Your task to perform on an android device: Nike Air Max 2020 shoes on Nike.com Image 0: 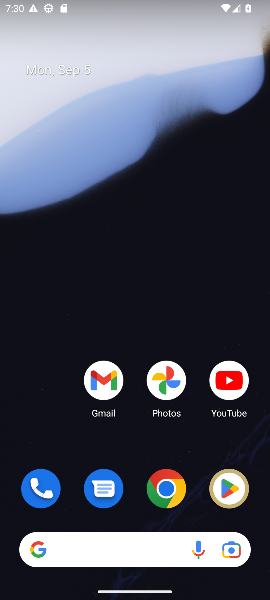
Step 0: click (177, 498)
Your task to perform on an android device: Nike Air Max 2020 shoes on Nike.com Image 1: 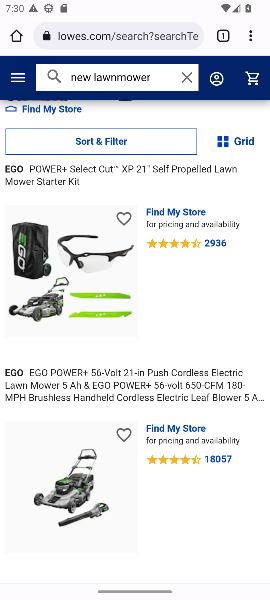
Step 1: click (162, 34)
Your task to perform on an android device: Nike Air Max 2020 shoes on Nike.com Image 2: 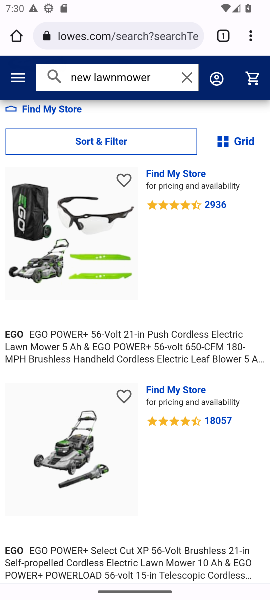
Step 2: click (145, 22)
Your task to perform on an android device: Nike Air Max 2020 shoes on Nike.com Image 3: 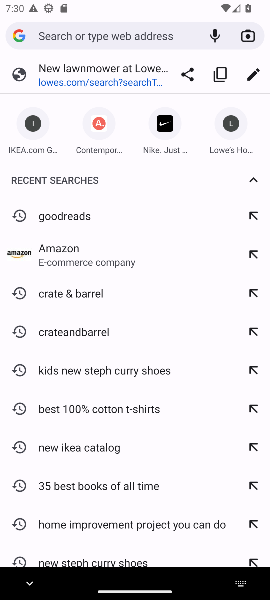
Step 3: type "nike.com"
Your task to perform on an android device: Nike Air Max 2020 shoes on Nike.com Image 4: 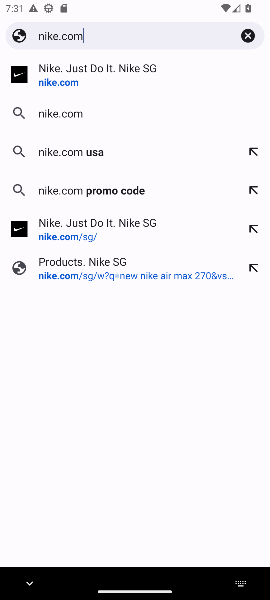
Step 4: press enter
Your task to perform on an android device: Nike Air Max 2020 shoes on Nike.com Image 5: 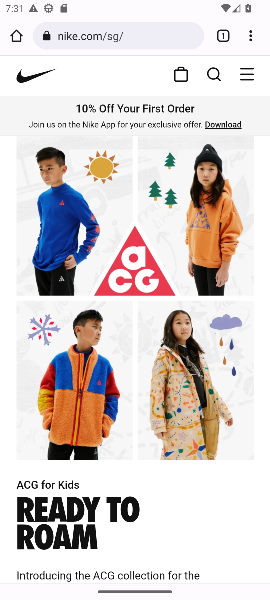
Step 5: click (210, 77)
Your task to perform on an android device: Nike Air Max 2020 shoes on Nike.com Image 6: 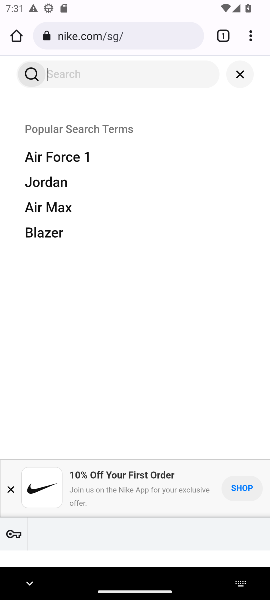
Step 6: type "nike air max 2020 shoes"
Your task to perform on an android device: Nike Air Max 2020 shoes on Nike.com Image 7: 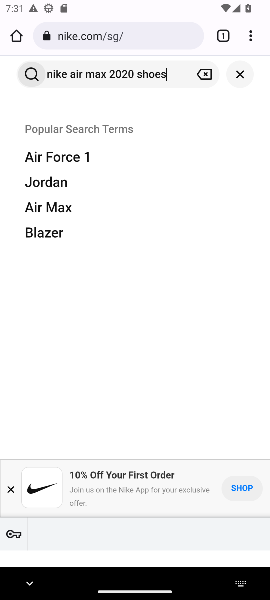
Step 7: press enter
Your task to perform on an android device: Nike Air Max 2020 shoes on Nike.com Image 8: 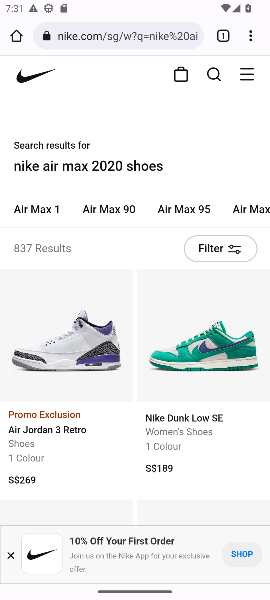
Step 8: drag from (133, 425) to (131, 205)
Your task to perform on an android device: Nike Air Max 2020 shoes on Nike.com Image 9: 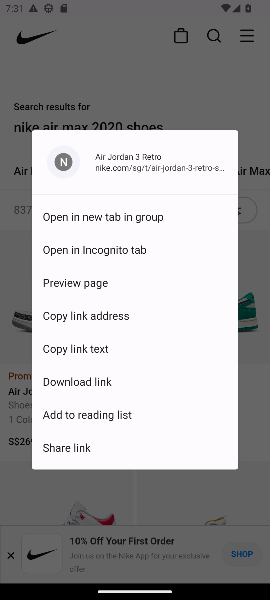
Step 9: click (234, 212)
Your task to perform on an android device: Nike Air Max 2020 shoes on Nike.com Image 10: 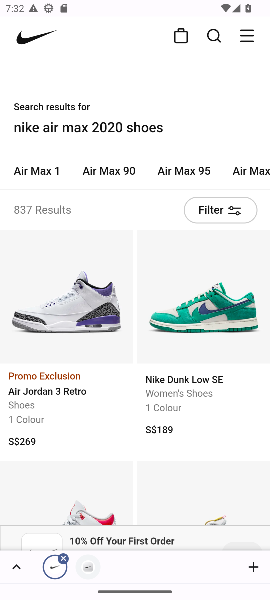
Step 10: drag from (125, 432) to (150, 112)
Your task to perform on an android device: Nike Air Max 2020 shoes on Nike.com Image 11: 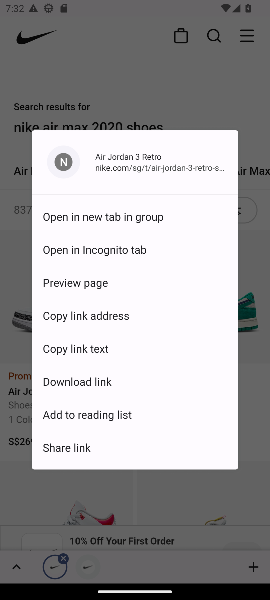
Step 11: click (157, 109)
Your task to perform on an android device: Nike Air Max 2020 shoes on Nike.com Image 12: 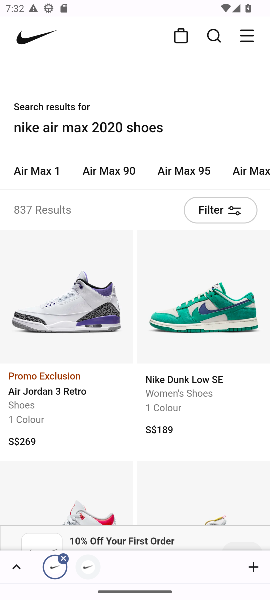
Step 12: task complete